Your task to perform on an android device: move a message to another label in the gmail app Image 0: 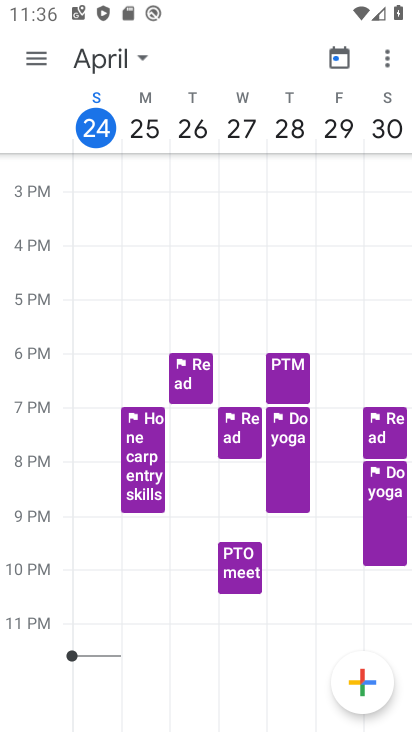
Step 0: press home button
Your task to perform on an android device: move a message to another label in the gmail app Image 1: 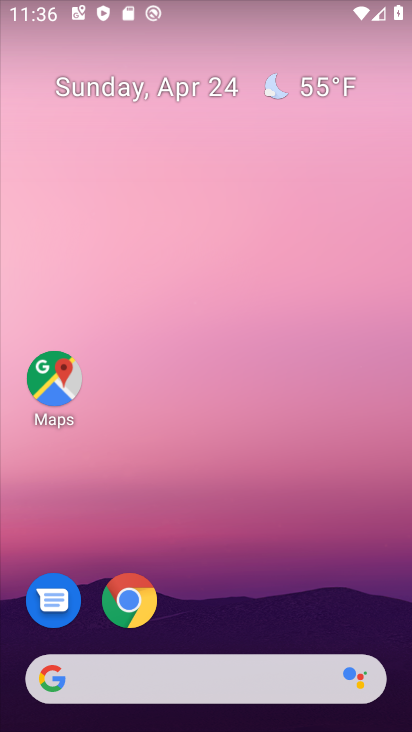
Step 1: drag from (201, 624) to (176, 152)
Your task to perform on an android device: move a message to another label in the gmail app Image 2: 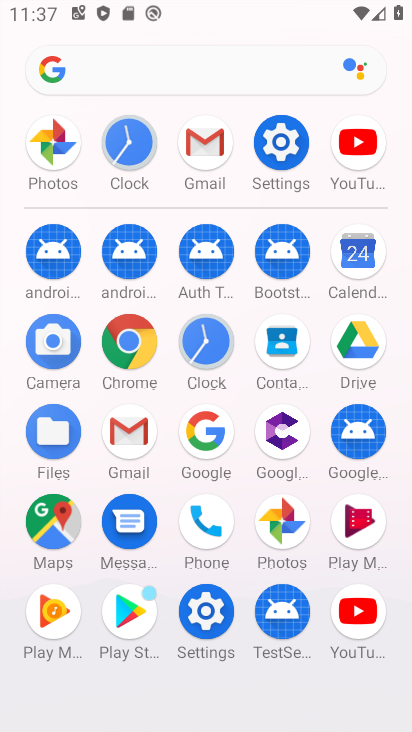
Step 2: click (139, 436)
Your task to perform on an android device: move a message to another label in the gmail app Image 3: 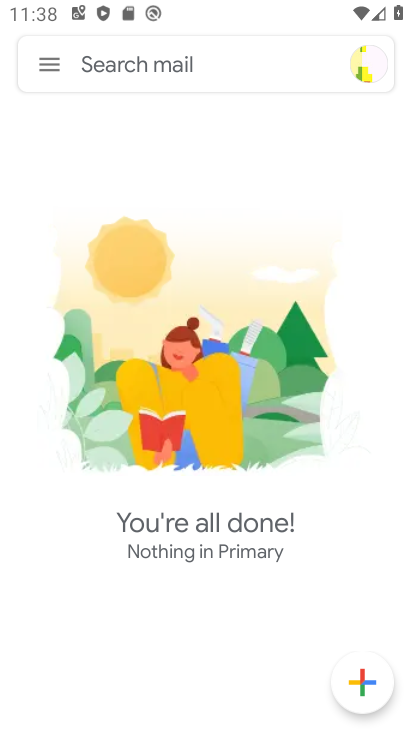
Step 3: task complete